Your task to perform on an android device: Open the contacts Image 0: 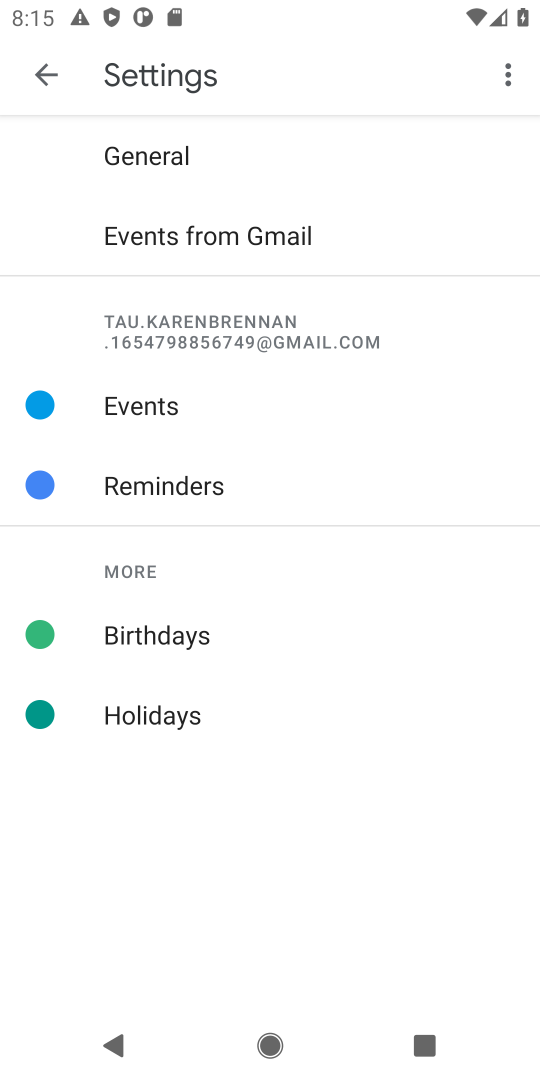
Step 0: press home button
Your task to perform on an android device: Open the contacts Image 1: 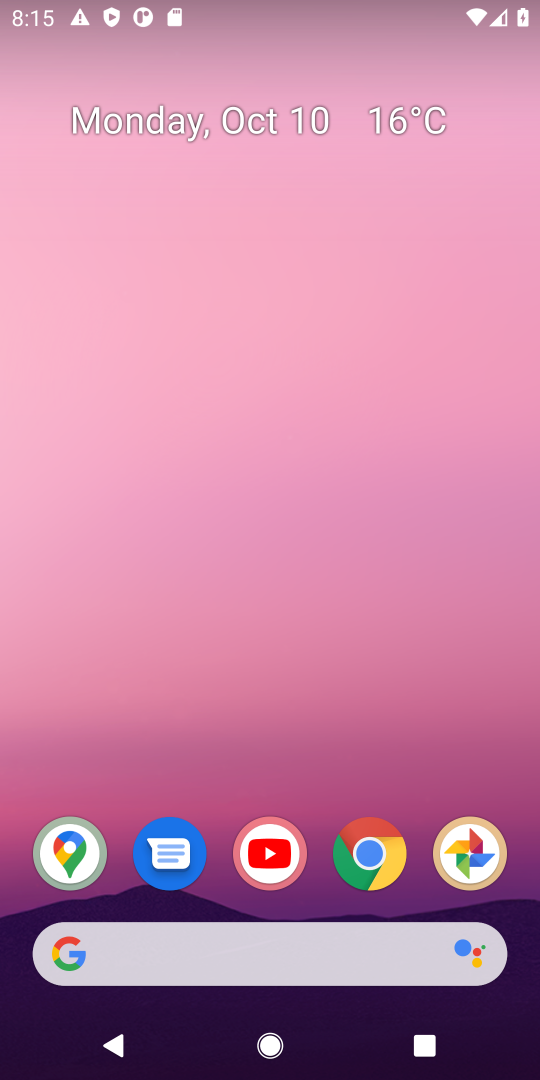
Step 1: drag from (323, 911) to (256, 176)
Your task to perform on an android device: Open the contacts Image 2: 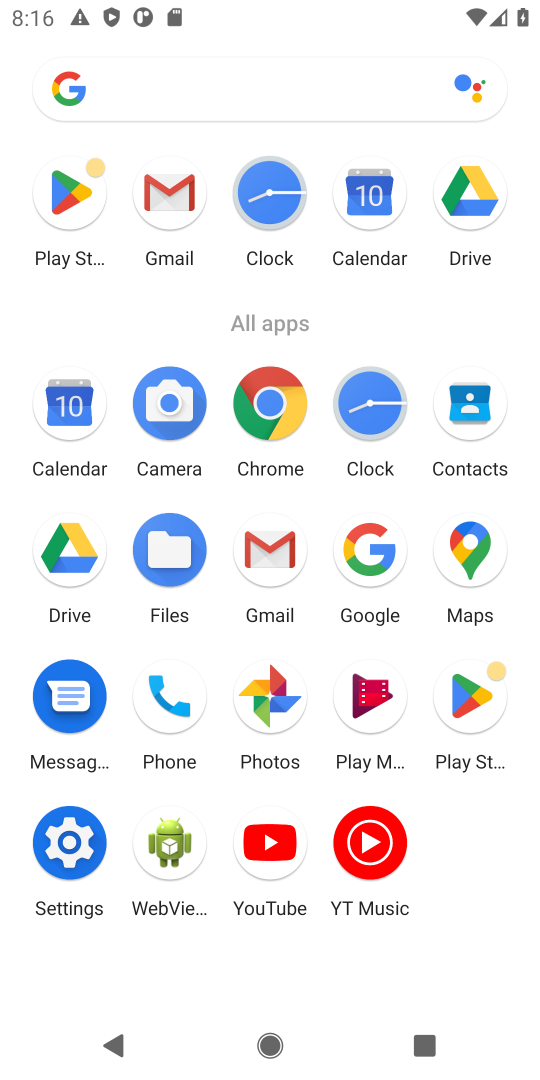
Step 2: click (468, 399)
Your task to perform on an android device: Open the contacts Image 3: 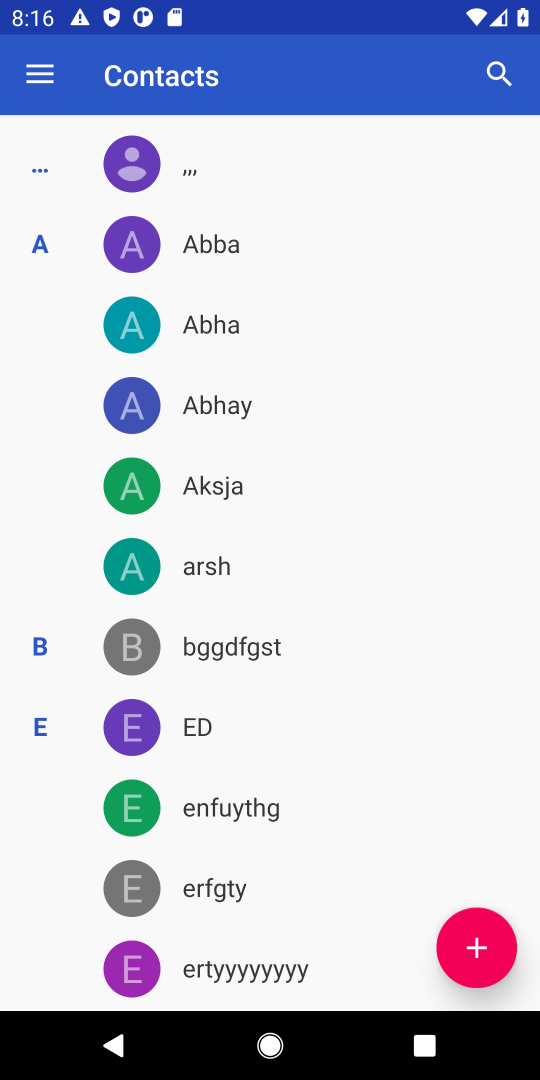
Step 3: task complete